Your task to perform on an android device: Clear the shopping cart on ebay. Search for "usb-b" on ebay, select the first entry, add it to the cart, then select checkout. Image 0: 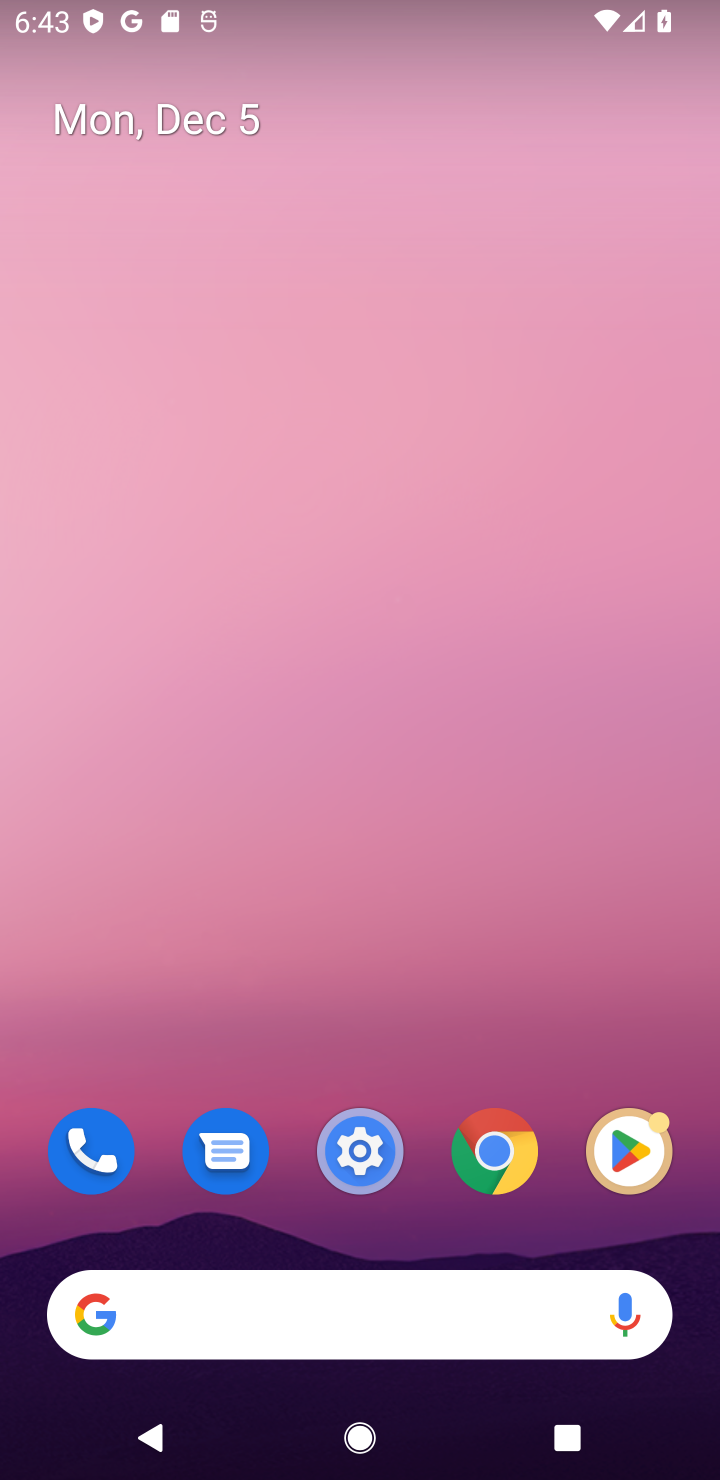
Step 0: click (266, 1292)
Your task to perform on an android device: Clear the shopping cart on ebay. Search for "usb-b" on ebay, select the first entry, add it to the cart, then select checkout. Image 1: 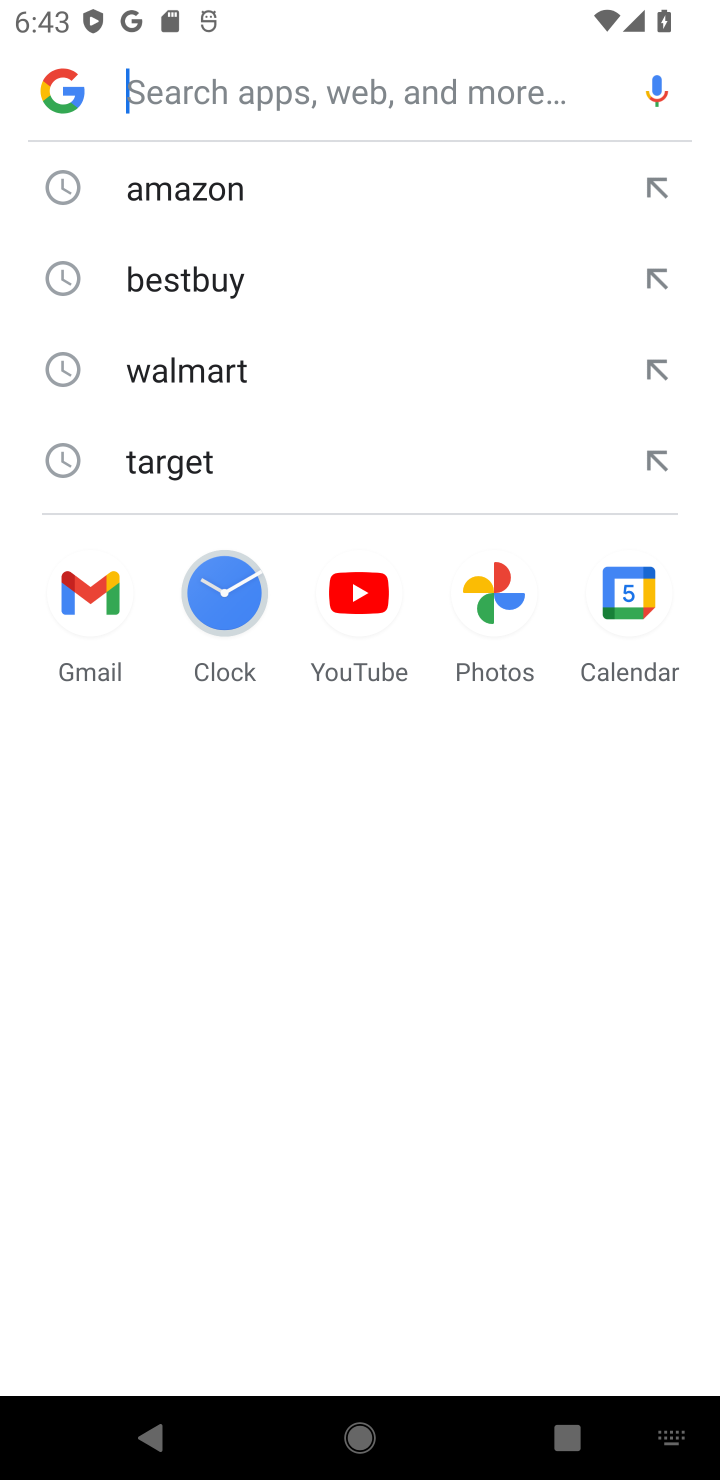
Step 1: type "ebay"
Your task to perform on an android device: Clear the shopping cart on ebay. Search for "usb-b" on ebay, select the first entry, add it to the cart, then select checkout. Image 2: 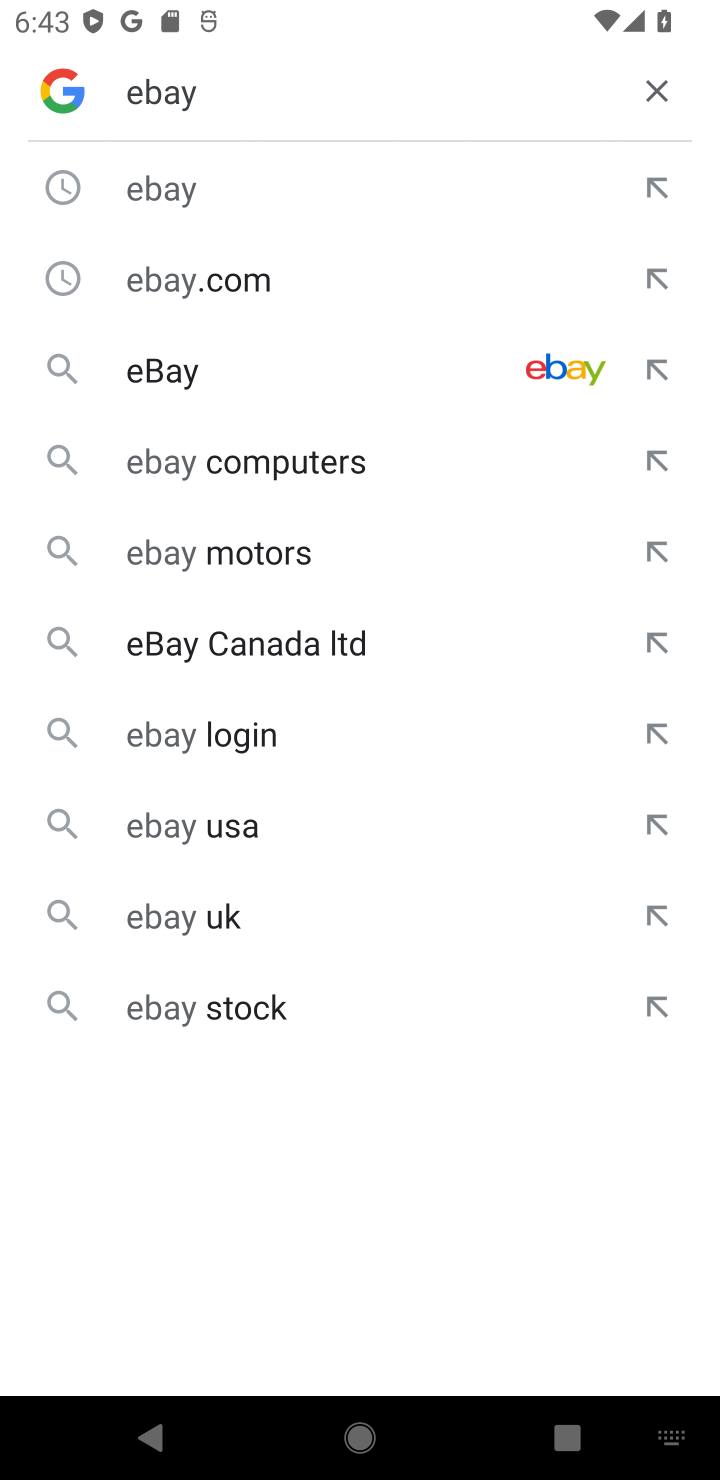
Step 2: click (153, 194)
Your task to perform on an android device: Clear the shopping cart on ebay. Search for "usb-b" on ebay, select the first entry, add it to the cart, then select checkout. Image 3: 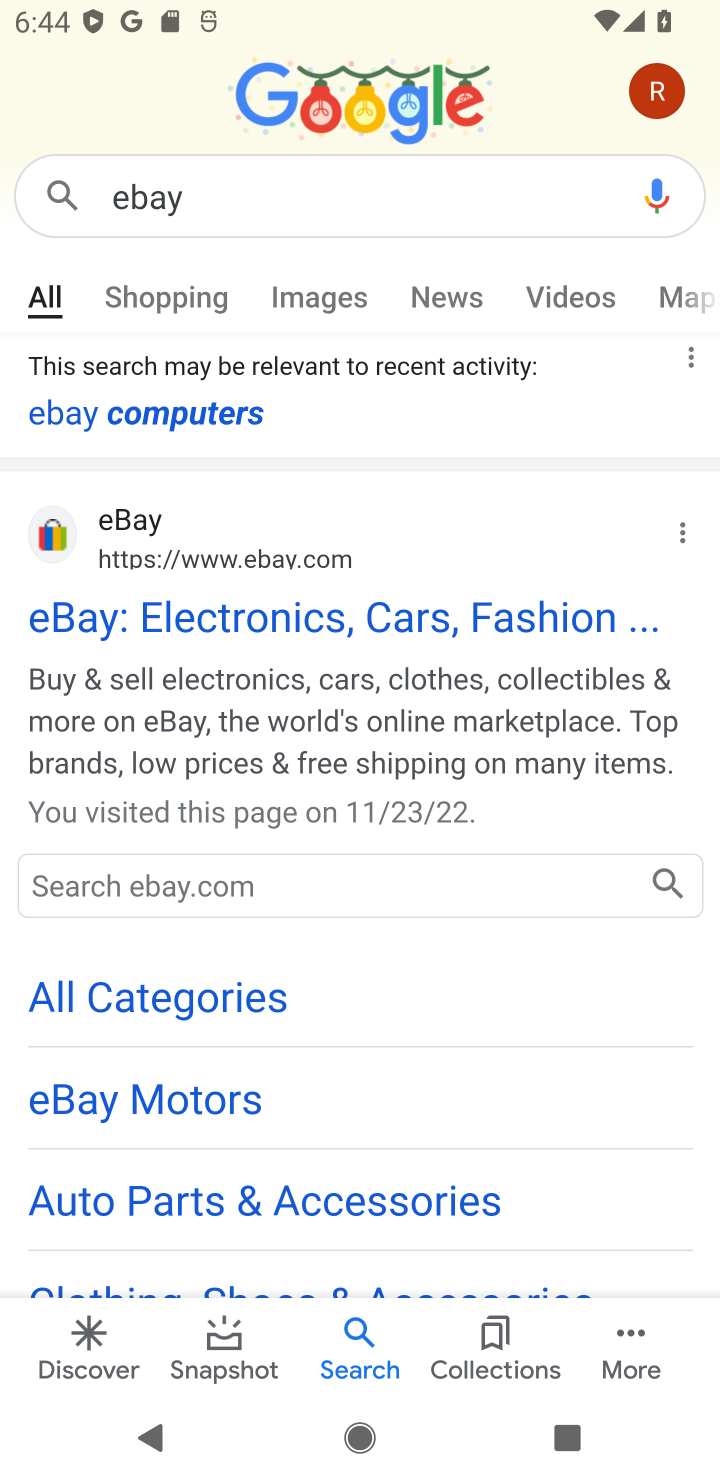
Step 3: click (167, 633)
Your task to perform on an android device: Clear the shopping cart on ebay. Search for "usb-b" on ebay, select the first entry, add it to the cart, then select checkout. Image 4: 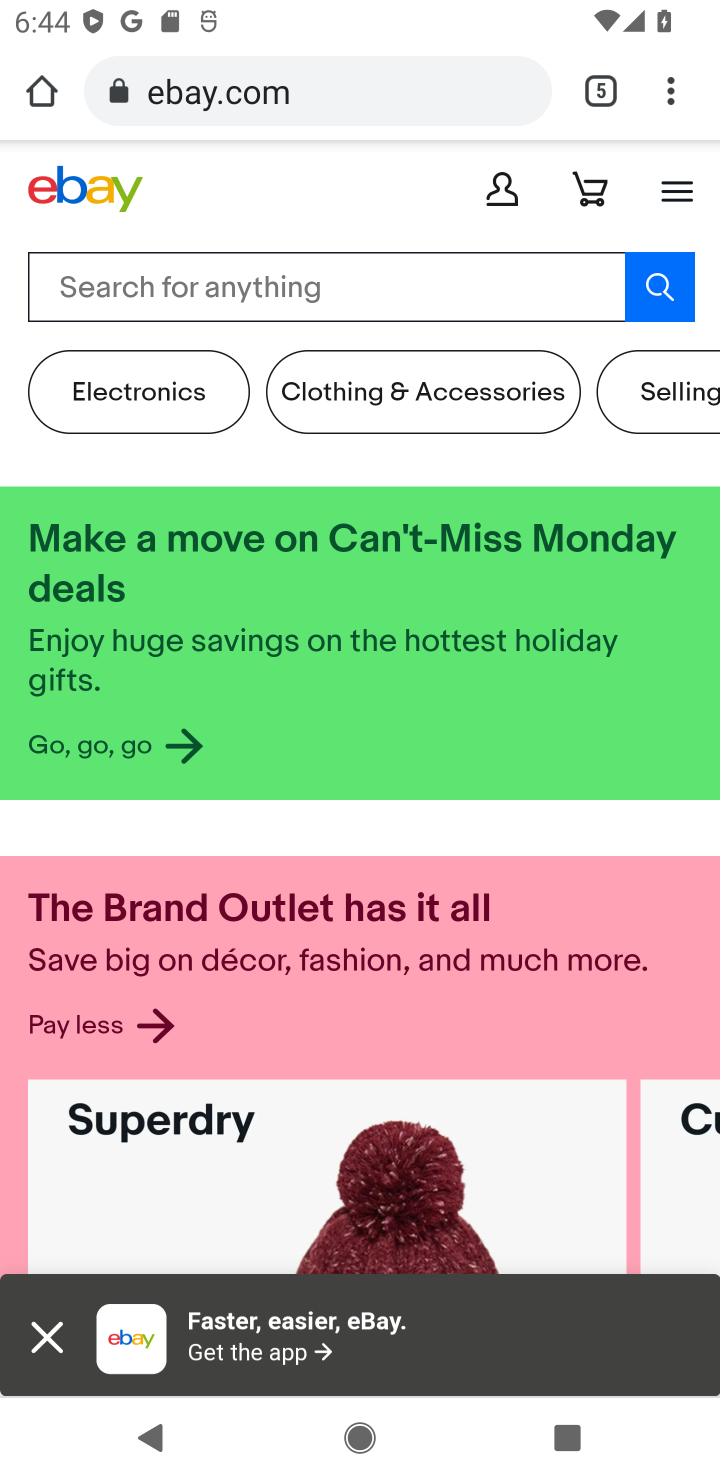
Step 4: task complete